Your task to perform on an android device: turn vacation reply on in the gmail app Image 0: 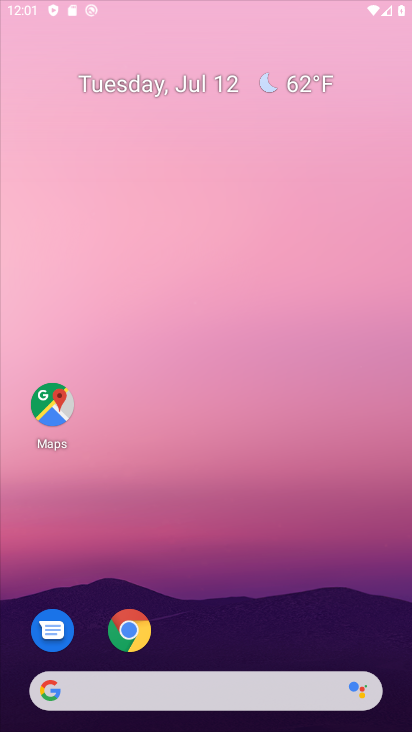
Step 0: drag from (194, 625) to (209, 120)
Your task to perform on an android device: turn vacation reply on in the gmail app Image 1: 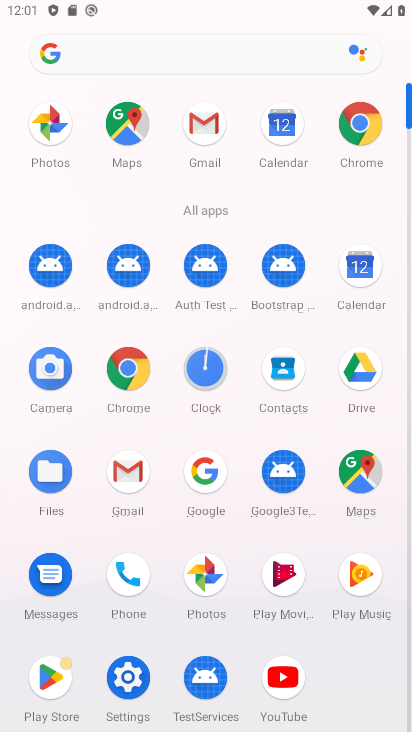
Step 1: click (199, 125)
Your task to perform on an android device: turn vacation reply on in the gmail app Image 2: 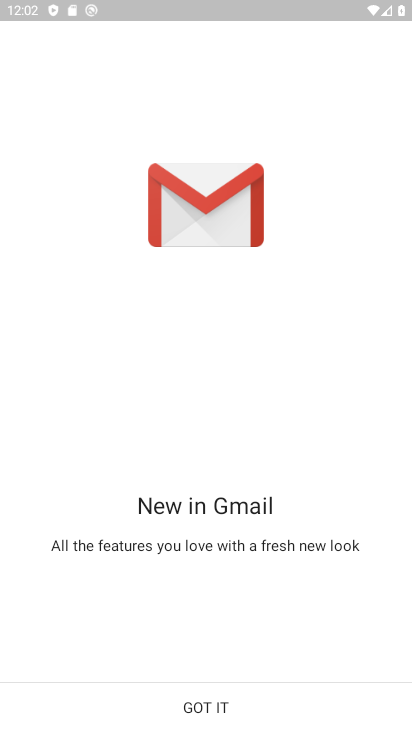
Step 2: click (197, 701)
Your task to perform on an android device: turn vacation reply on in the gmail app Image 3: 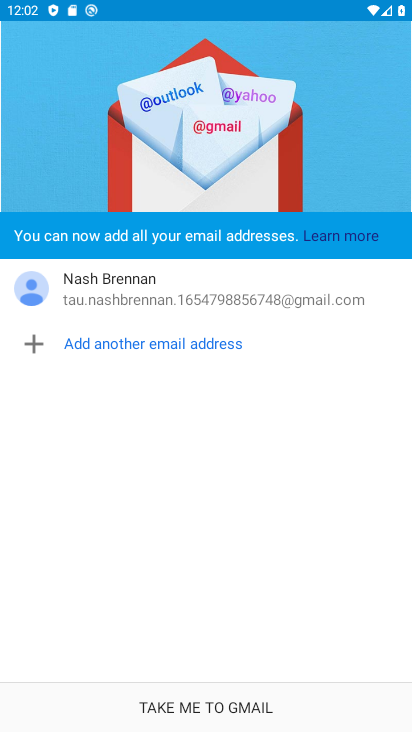
Step 3: click (242, 704)
Your task to perform on an android device: turn vacation reply on in the gmail app Image 4: 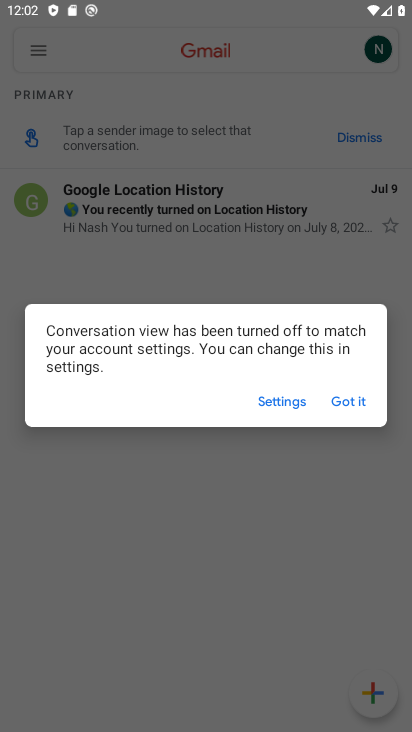
Step 4: click (286, 404)
Your task to perform on an android device: turn vacation reply on in the gmail app Image 5: 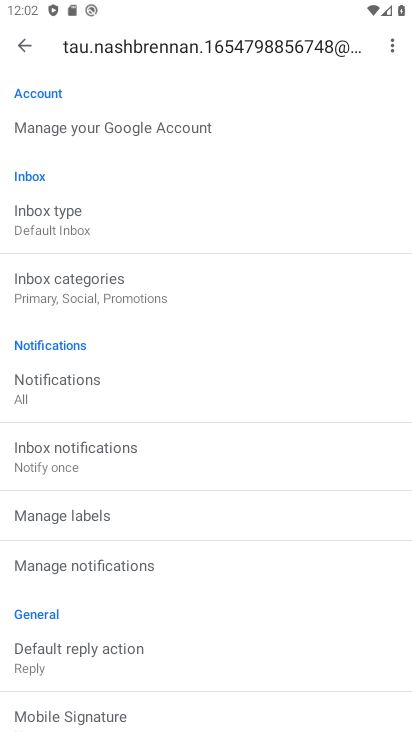
Step 5: drag from (109, 664) to (114, 297)
Your task to perform on an android device: turn vacation reply on in the gmail app Image 6: 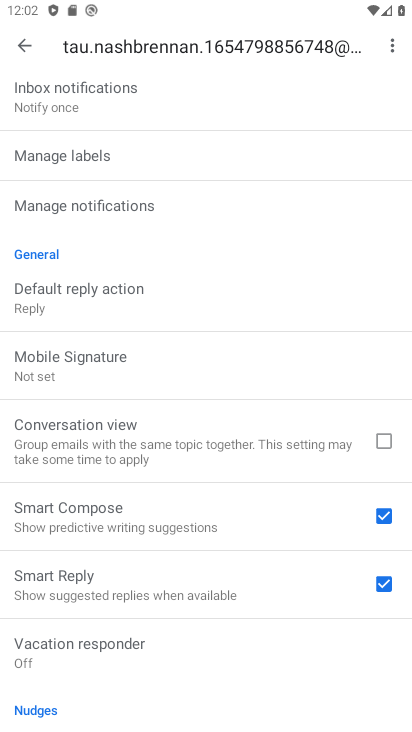
Step 6: click (78, 646)
Your task to perform on an android device: turn vacation reply on in the gmail app Image 7: 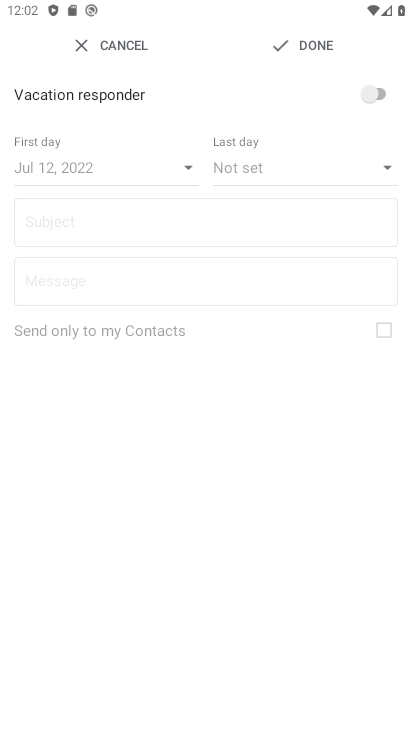
Step 7: click (371, 87)
Your task to perform on an android device: turn vacation reply on in the gmail app Image 8: 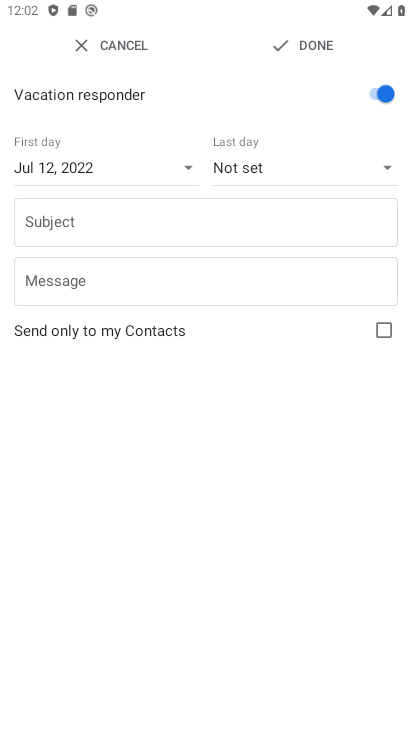
Step 8: task complete